Your task to perform on an android device: turn off javascript in the chrome app Image 0: 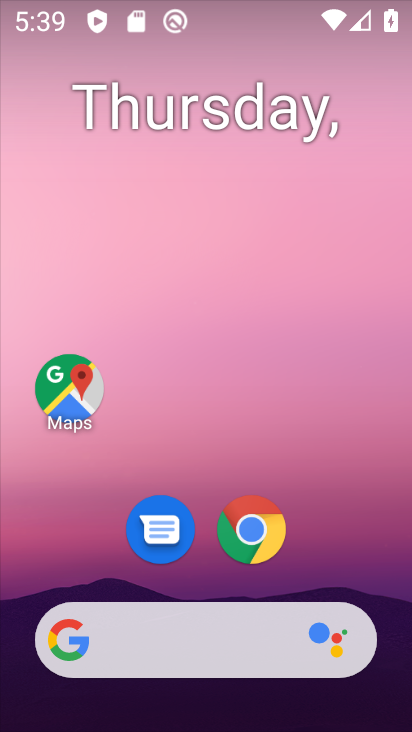
Step 0: click (254, 531)
Your task to perform on an android device: turn off javascript in the chrome app Image 1: 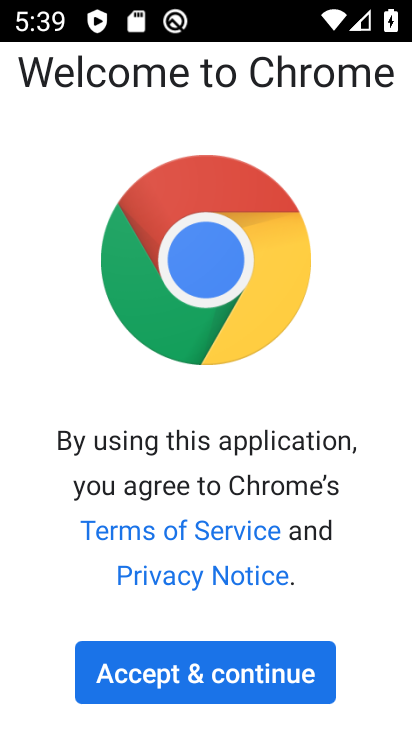
Step 1: click (212, 677)
Your task to perform on an android device: turn off javascript in the chrome app Image 2: 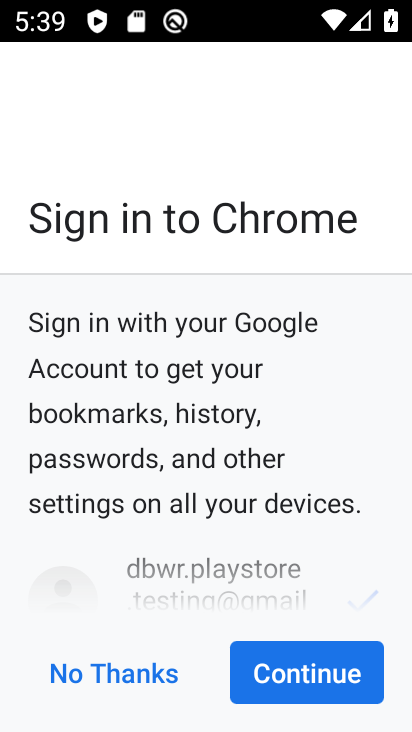
Step 2: click (299, 674)
Your task to perform on an android device: turn off javascript in the chrome app Image 3: 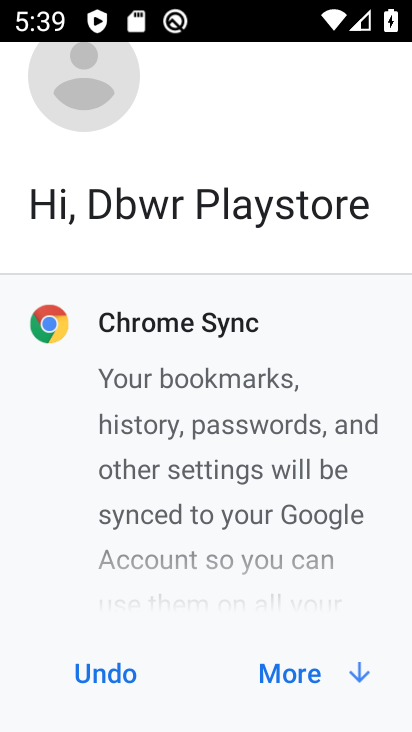
Step 3: click (299, 674)
Your task to perform on an android device: turn off javascript in the chrome app Image 4: 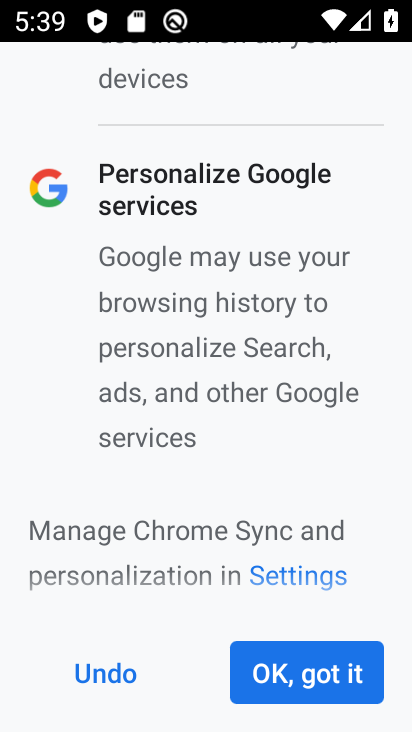
Step 4: click (299, 674)
Your task to perform on an android device: turn off javascript in the chrome app Image 5: 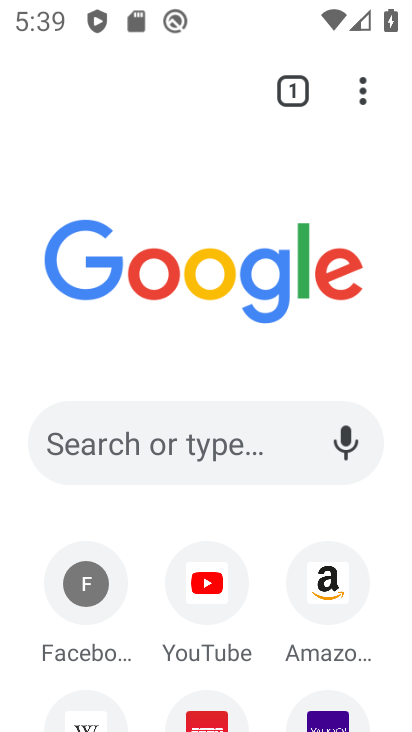
Step 5: click (364, 93)
Your task to perform on an android device: turn off javascript in the chrome app Image 6: 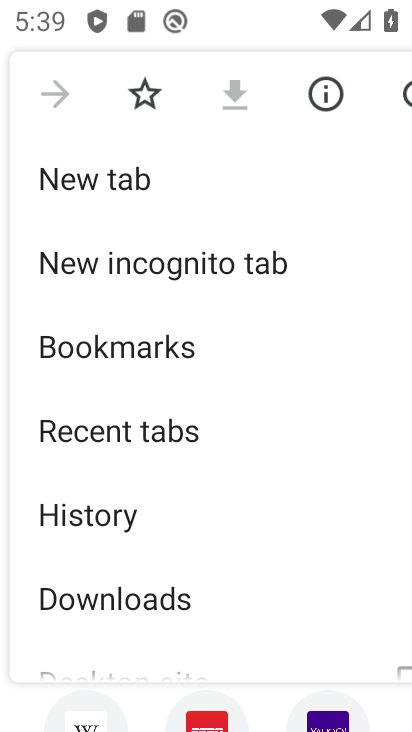
Step 6: drag from (174, 481) to (224, 379)
Your task to perform on an android device: turn off javascript in the chrome app Image 7: 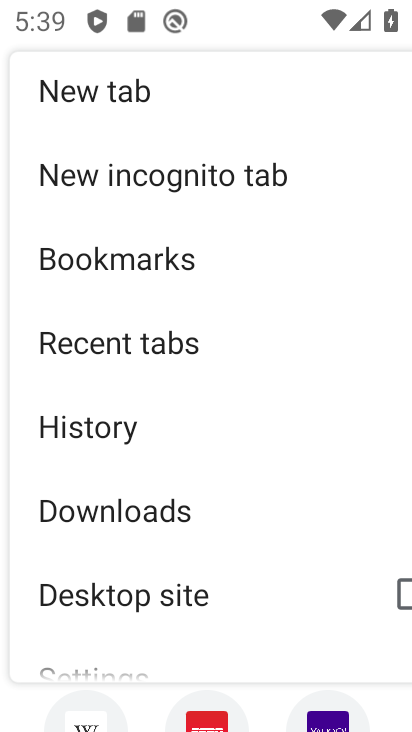
Step 7: drag from (151, 541) to (235, 414)
Your task to perform on an android device: turn off javascript in the chrome app Image 8: 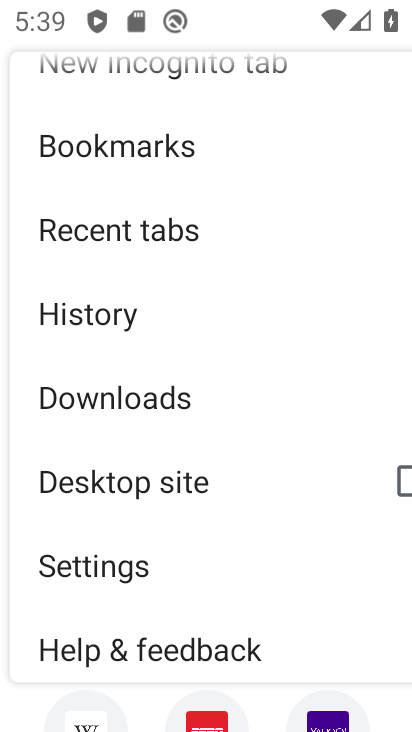
Step 8: click (125, 575)
Your task to perform on an android device: turn off javascript in the chrome app Image 9: 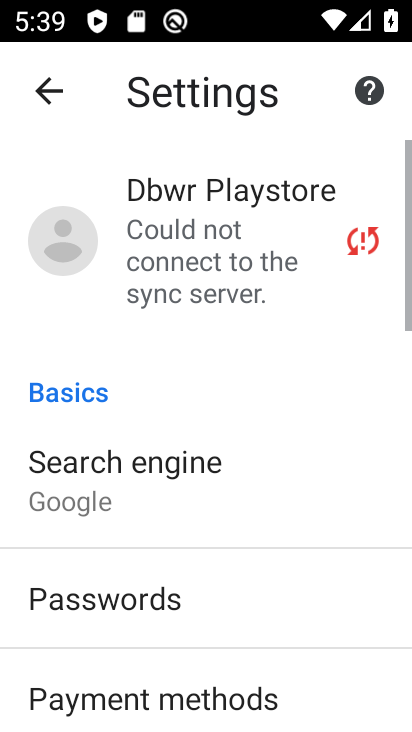
Step 9: drag from (132, 560) to (189, 451)
Your task to perform on an android device: turn off javascript in the chrome app Image 10: 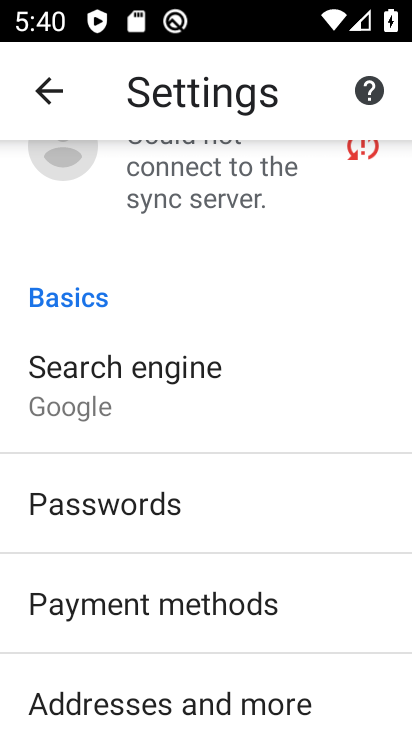
Step 10: drag from (157, 623) to (219, 507)
Your task to perform on an android device: turn off javascript in the chrome app Image 11: 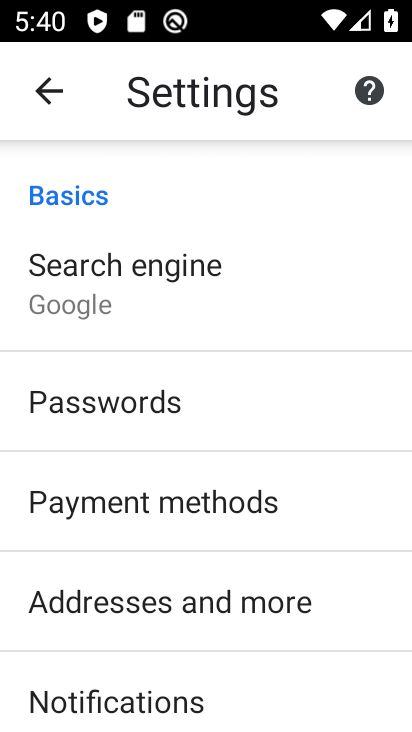
Step 11: drag from (147, 642) to (226, 500)
Your task to perform on an android device: turn off javascript in the chrome app Image 12: 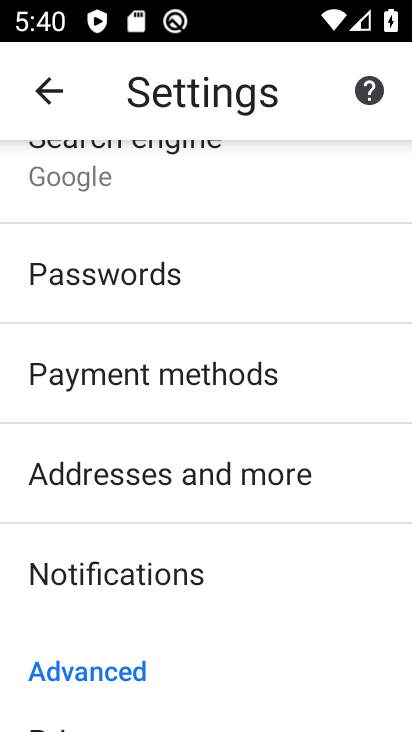
Step 12: drag from (157, 613) to (222, 499)
Your task to perform on an android device: turn off javascript in the chrome app Image 13: 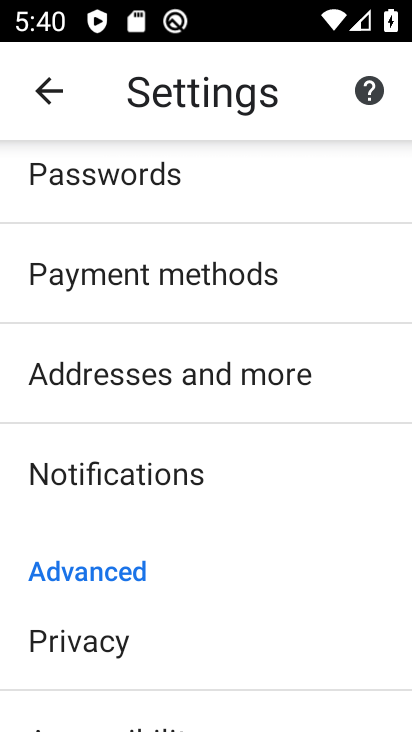
Step 13: drag from (144, 609) to (248, 469)
Your task to perform on an android device: turn off javascript in the chrome app Image 14: 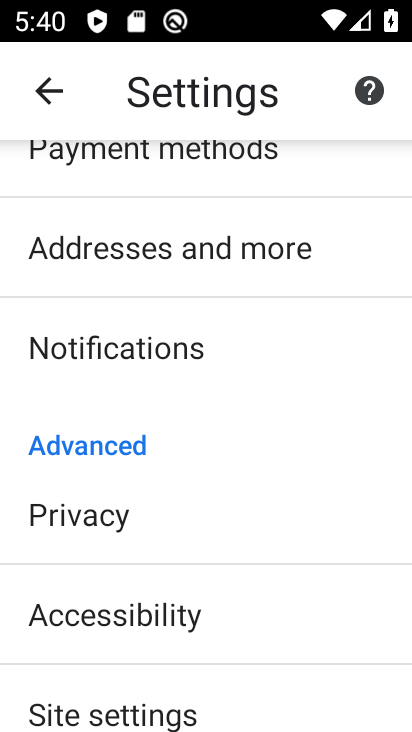
Step 14: drag from (118, 636) to (222, 506)
Your task to perform on an android device: turn off javascript in the chrome app Image 15: 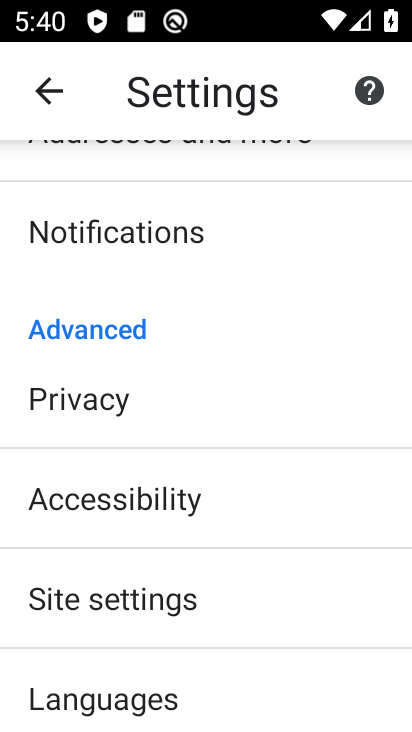
Step 15: click (139, 602)
Your task to perform on an android device: turn off javascript in the chrome app Image 16: 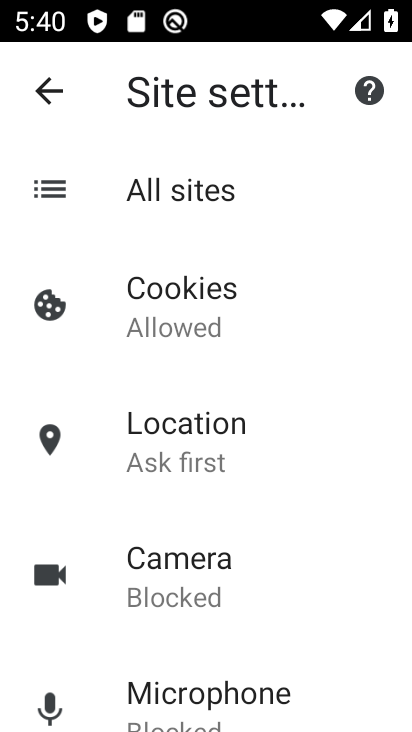
Step 16: drag from (222, 517) to (300, 417)
Your task to perform on an android device: turn off javascript in the chrome app Image 17: 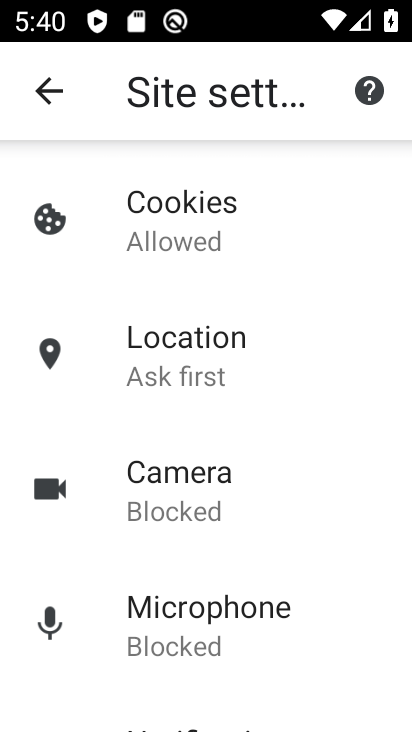
Step 17: drag from (247, 627) to (301, 538)
Your task to perform on an android device: turn off javascript in the chrome app Image 18: 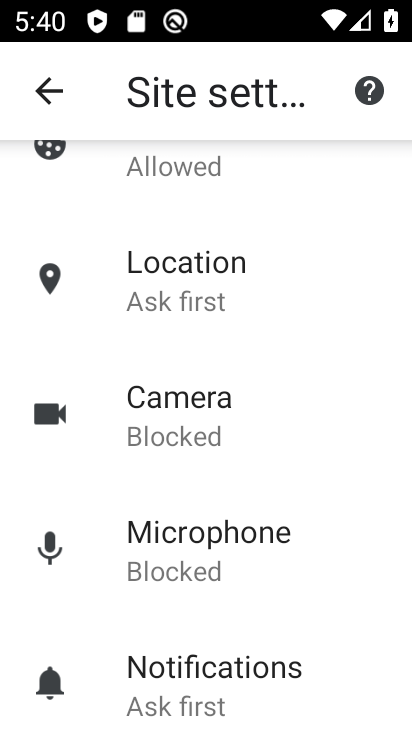
Step 18: drag from (249, 690) to (307, 542)
Your task to perform on an android device: turn off javascript in the chrome app Image 19: 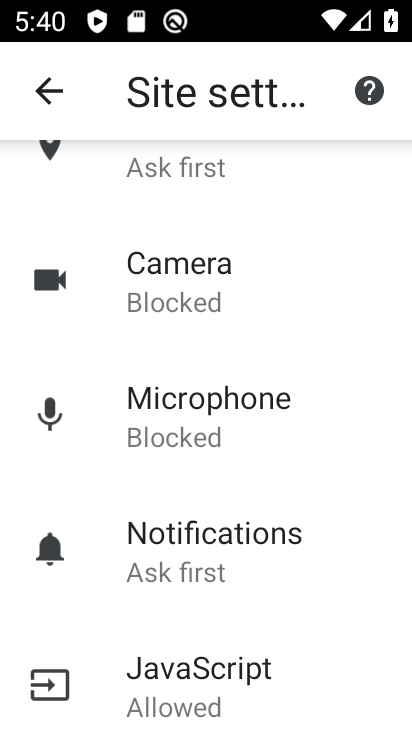
Step 19: drag from (207, 628) to (277, 486)
Your task to perform on an android device: turn off javascript in the chrome app Image 20: 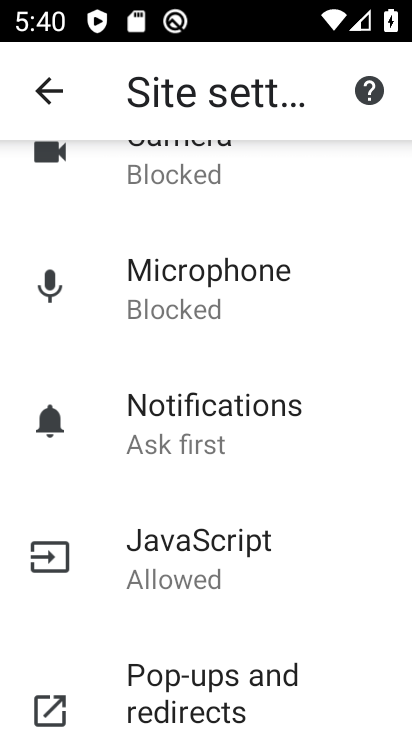
Step 20: click (226, 539)
Your task to perform on an android device: turn off javascript in the chrome app Image 21: 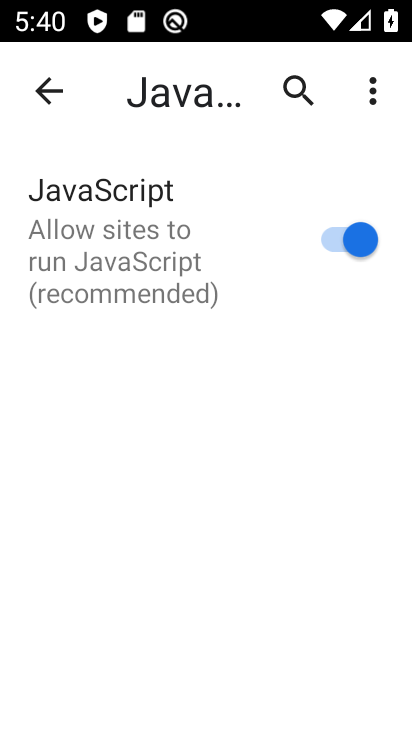
Step 21: click (360, 246)
Your task to perform on an android device: turn off javascript in the chrome app Image 22: 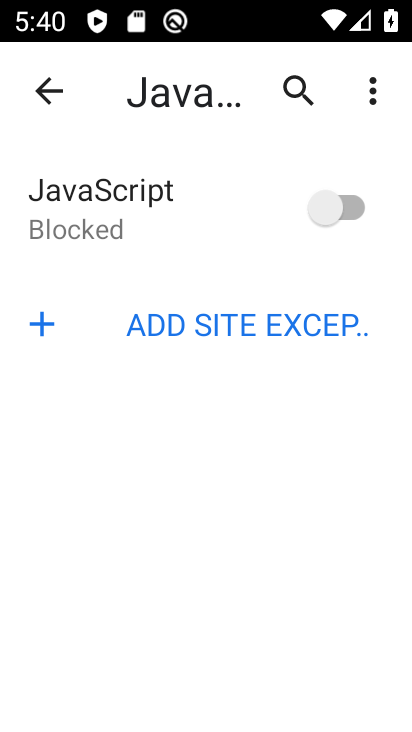
Step 22: task complete